Your task to perform on an android device: Find coffee shops on Maps Image 0: 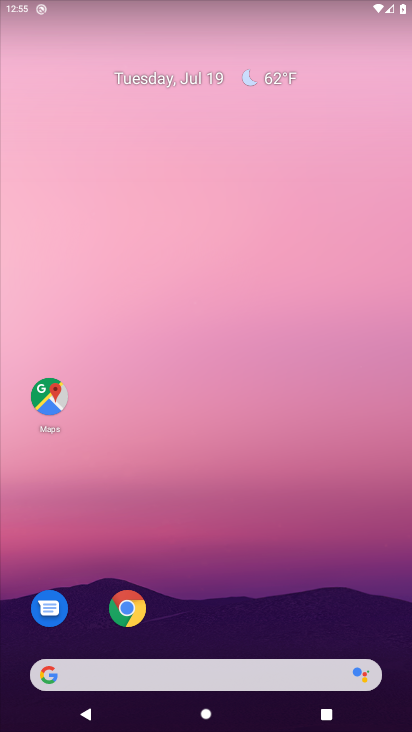
Step 0: press home button
Your task to perform on an android device: Find coffee shops on Maps Image 1: 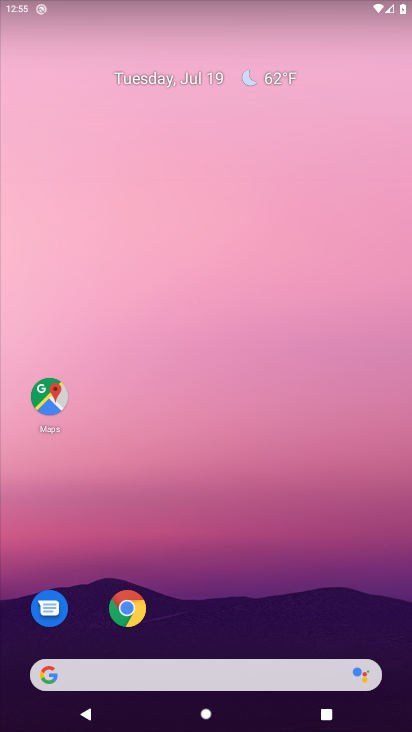
Step 1: click (42, 389)
Your task to perform on an android device: Find coffee shops on Maps Image 2: 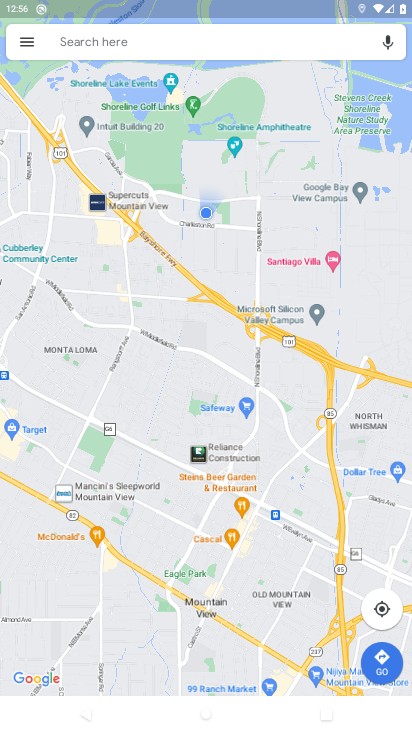
Step 2: click (76, 34)
Your task to perform on an android device: Find coffee shops on Maps Image 3: 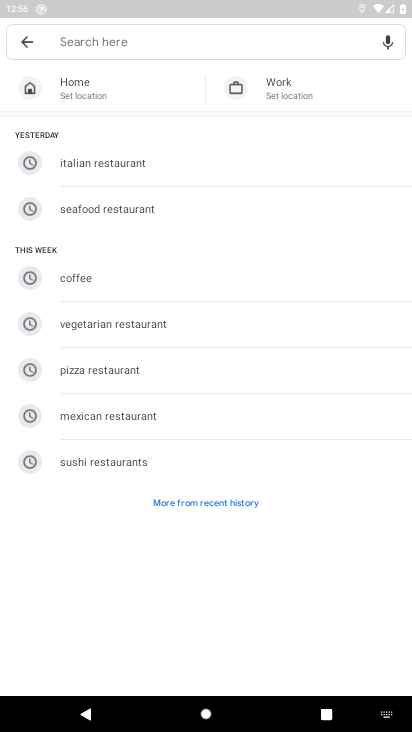
Step 3: type "coffee"
Your task to perform on an android device: Find coffee shops on Maps Image 4: 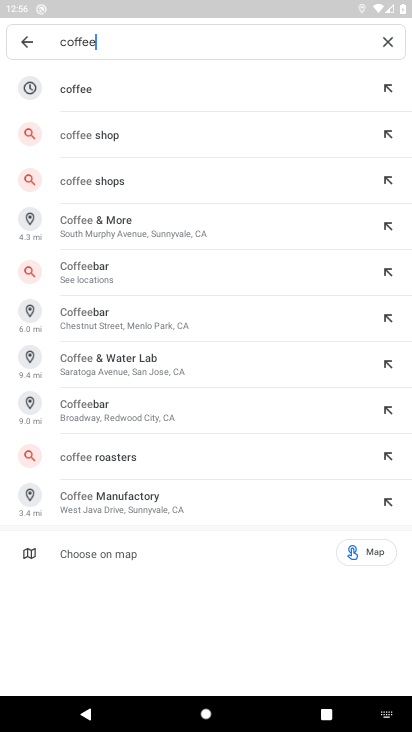
Step 4: click (105, 182)
Your task to perform on an android device: Find coffee shops on Maps Image 5: 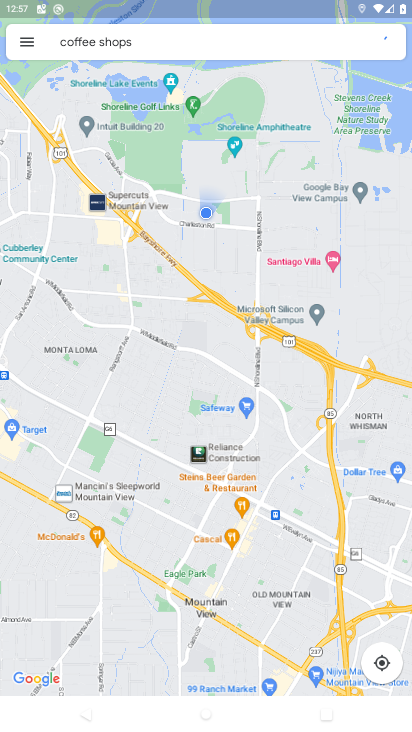
Step 5: task complete